Your task to perform on an android device: turn on improve location accuracy Image 0: 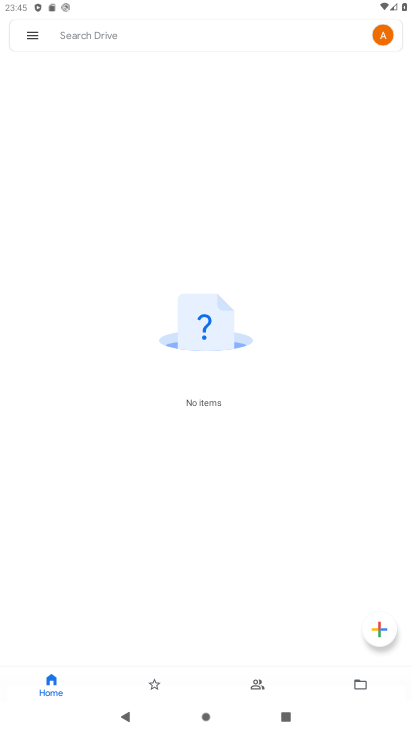
Step 0: press home button
Your task to perform on an android device: turn on improve location accuracy Image 1: 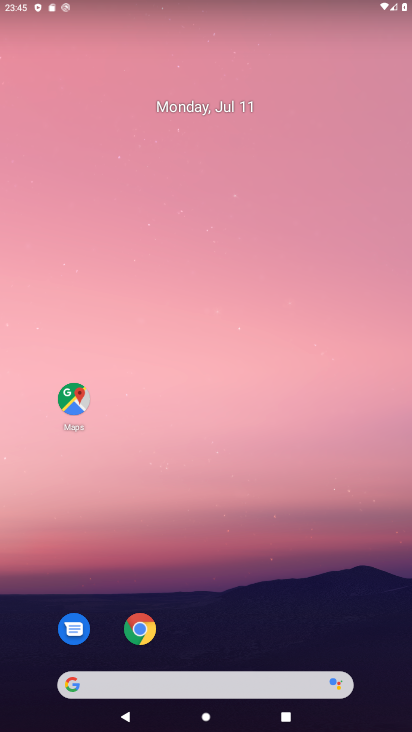
Step 1: drag from (338, 634) to (331, 52)
Your task to perform on an android device: turn on improve location accuracy Image 2: 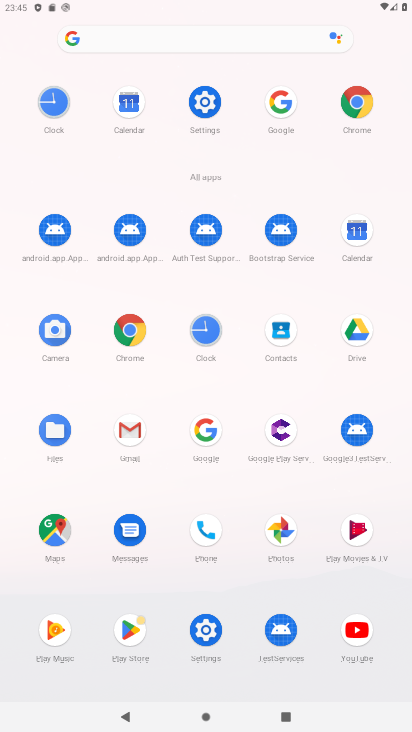
Step 2: click (209, 110)
Your task to perform on an android device: turn on improve location accuracy Image 3: 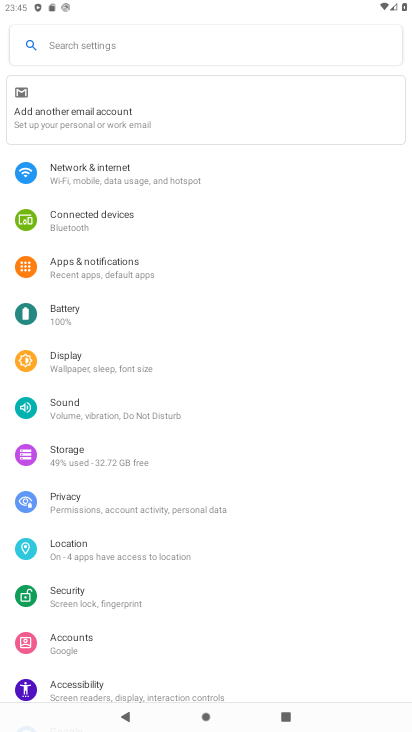
Step 3: drag from (306, 581) to (313, 303)
Your task to perform on an android device: turn on improve location accuracy Image 4: 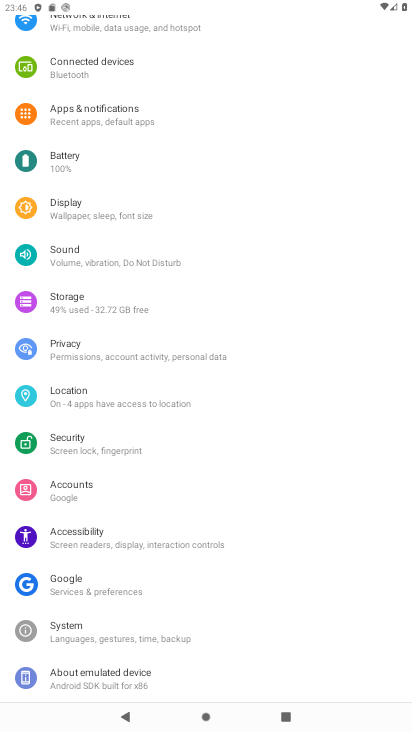
Step 4: click (219, 408)
Your task to perform on an android device: turn on improve location accuracy Image 5: 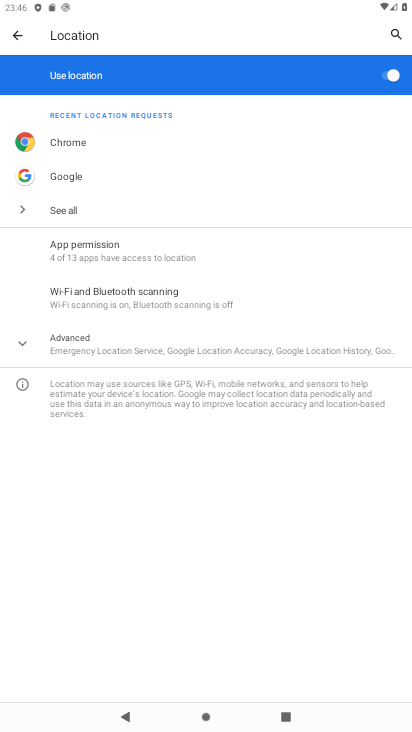
Step 5: click (177, 346)
Your task to perform on an android device: turn on improve location accuracy Image 6: 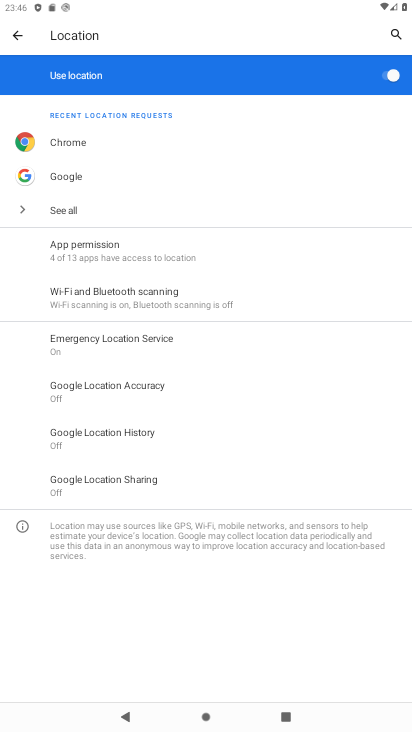
Step 6: click (144, 387)
Your task to perform on an android device: turn on improve location accuracy Image 7: 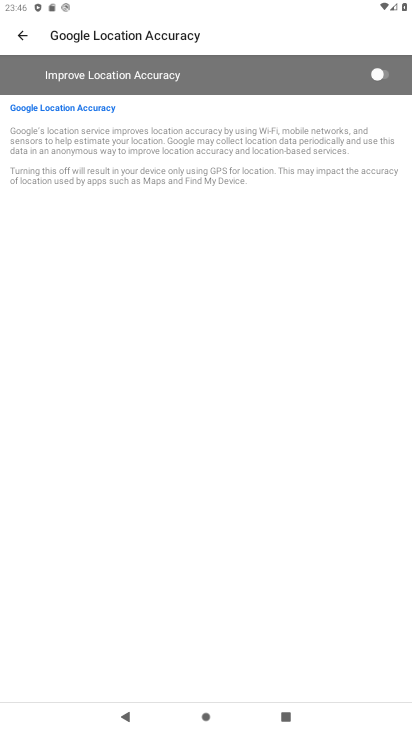
Step 7: click (364, 80)
Your task to perform on an android device: turn on improve location accuracy Image 8: 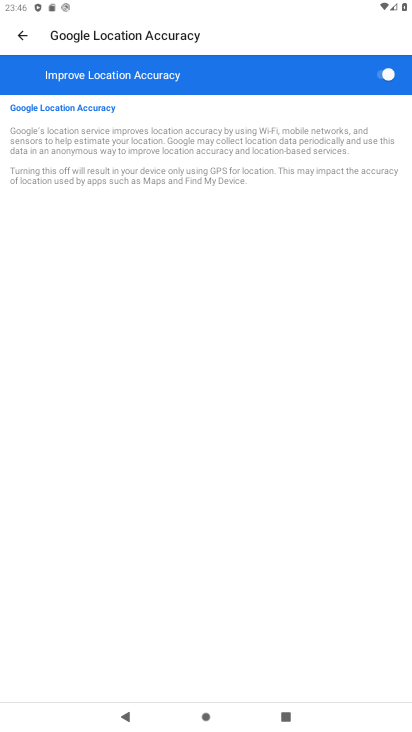
Step 8: task complete